Your task to perform on an android device: turn off priority inbox in the gmail app Image 0: 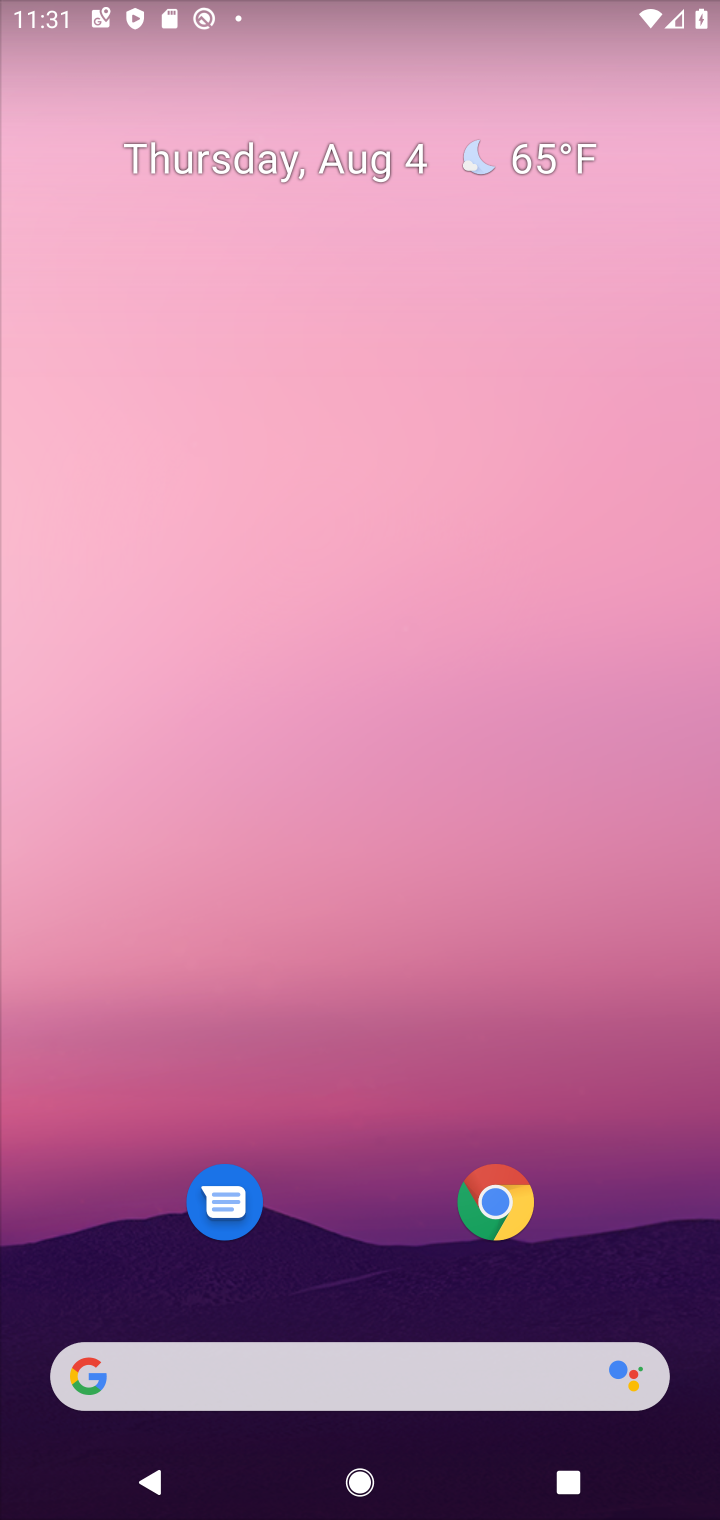
Step 0: drag from (415, 1018) to (548, 159)
Your task to perform on an android device: turn off priority inbox in the gmail app Image 1: 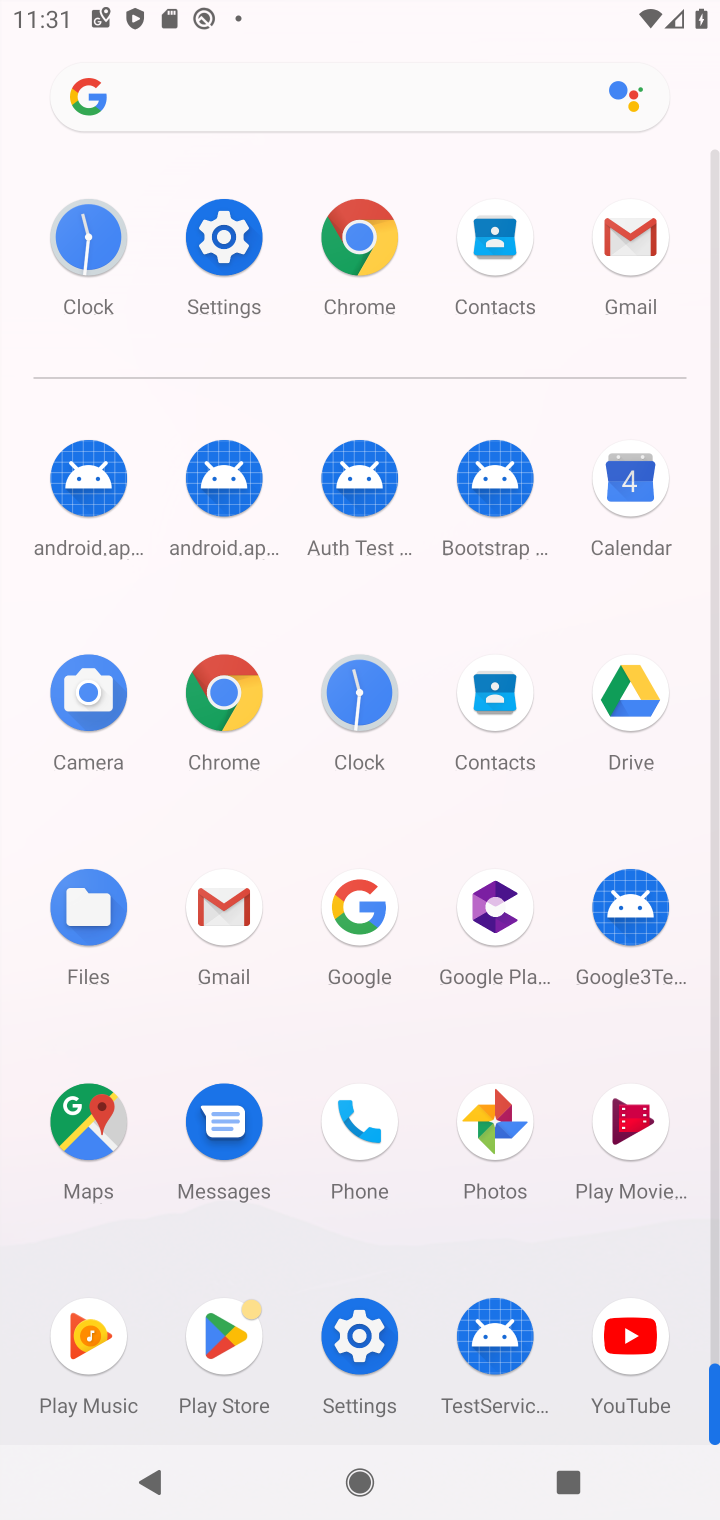
Step 1: click (231, 921)
Your task to perform on an android device: turn off priority inbox in the gmail app Image 2: 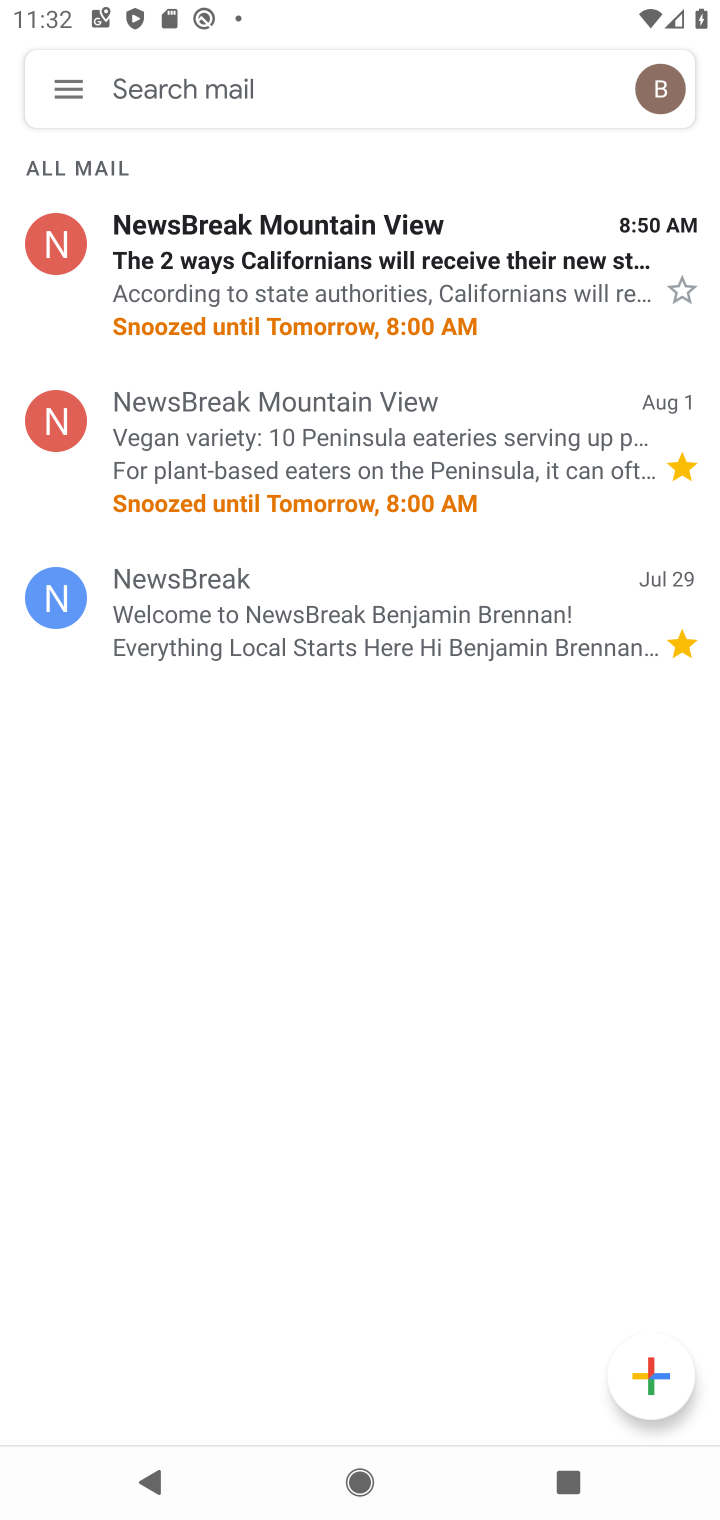
Step 2: click (65, 87)
Your task to perform on an android device: turn off priority inbox in the gmail app Image 3: 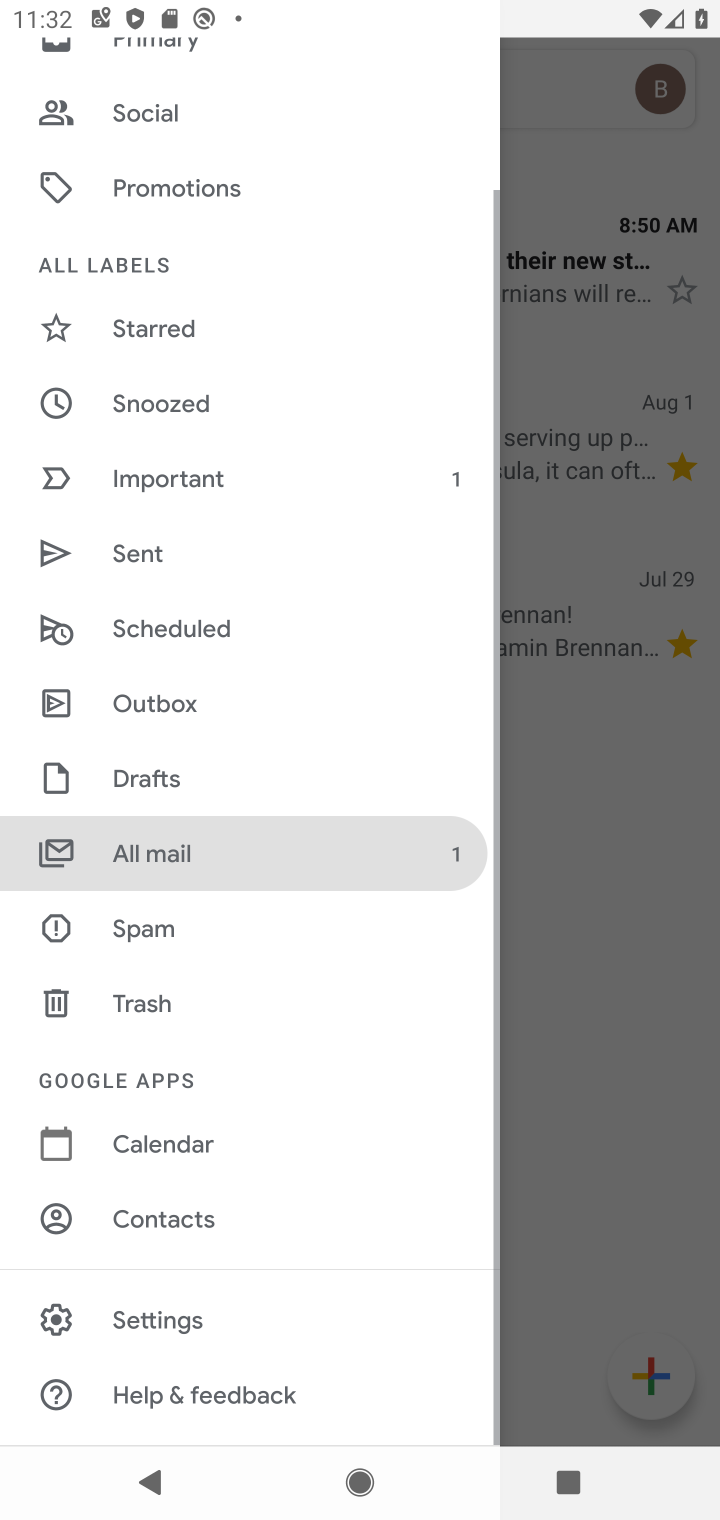
Step 3: click (201, 1301)
Your task to perform on an android device: turn off priority inbox in the gmail app Image 4: 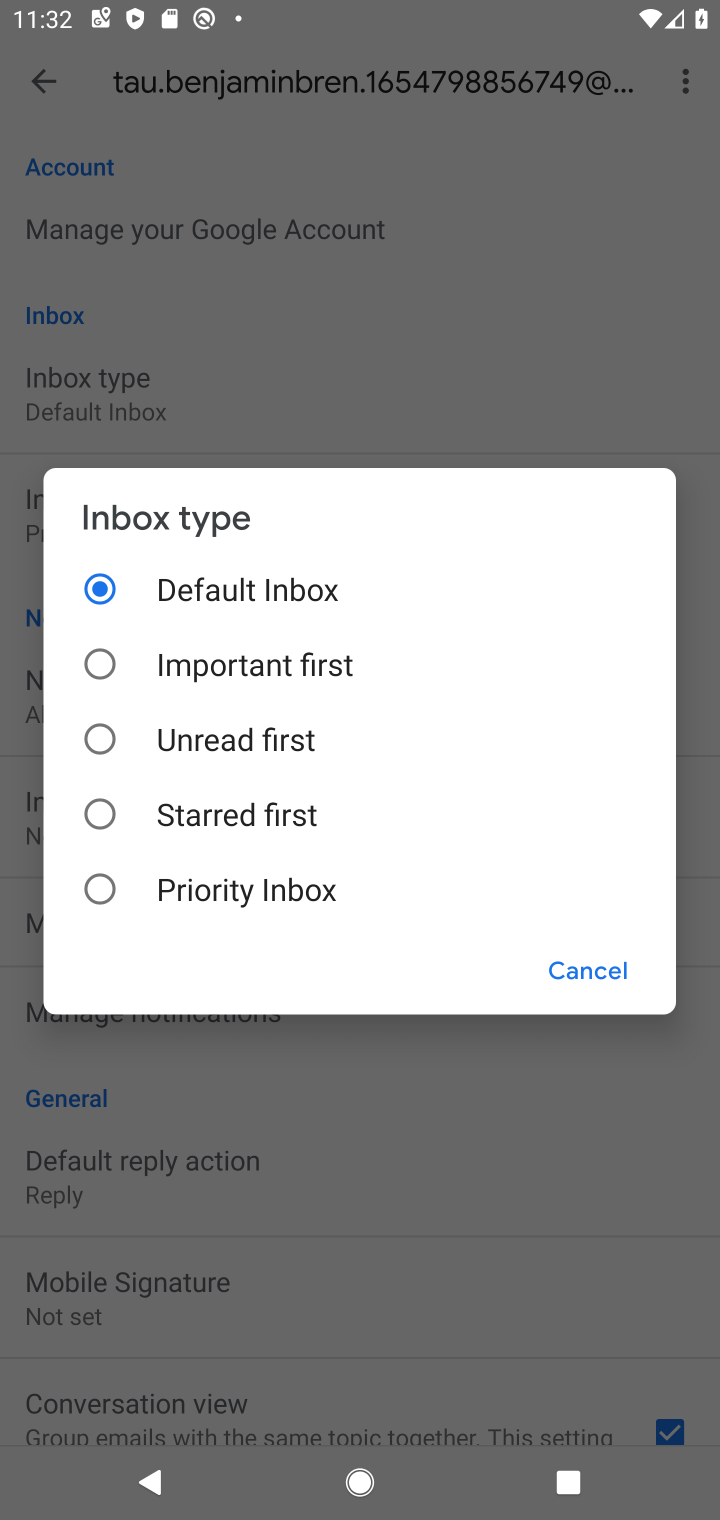
Step 4: task complete